Your task to perform on an android device: turn on wifi Image 0: 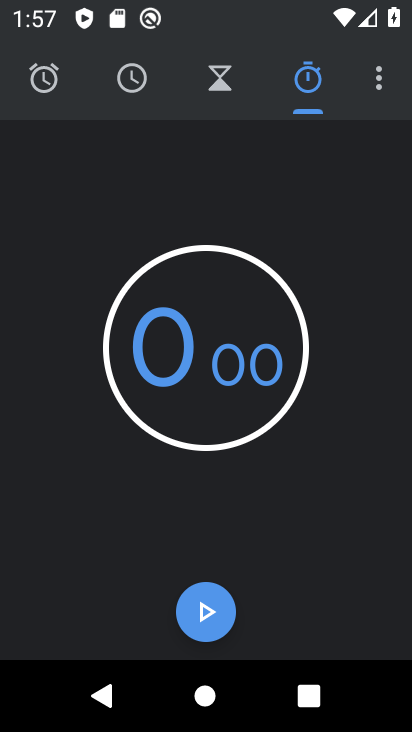
Step 0: press home button
Your task to perform on an android device: turn on wifi Image 1: 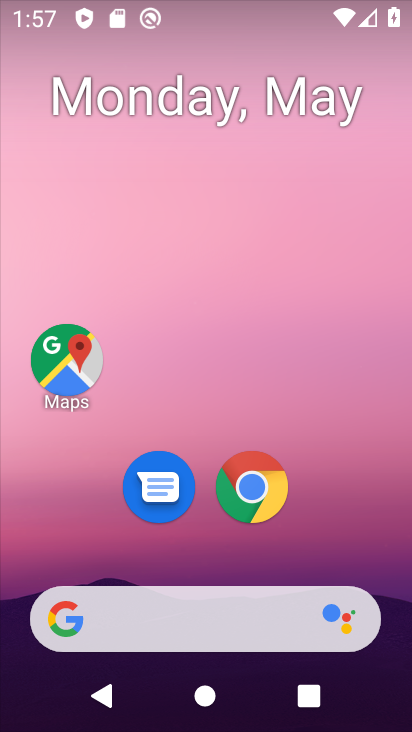
Step 1: drag from (349, 569) to (315, 183)
Your task to perform on an android device: turn on wifi Image 2: 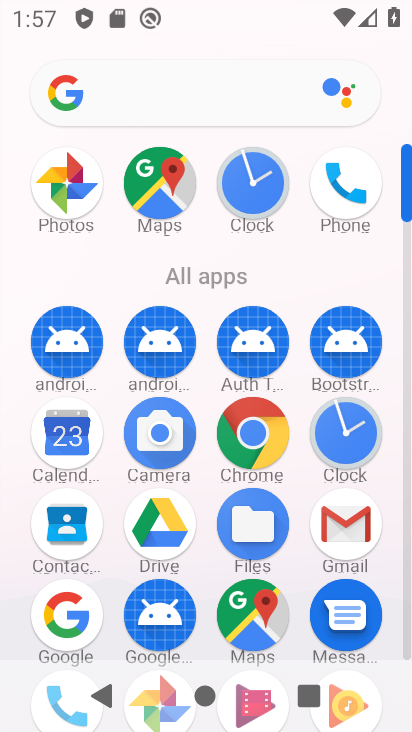
Step 2: click (407, 648)
Your task to perform on an android device: turn on wifi Image 3: 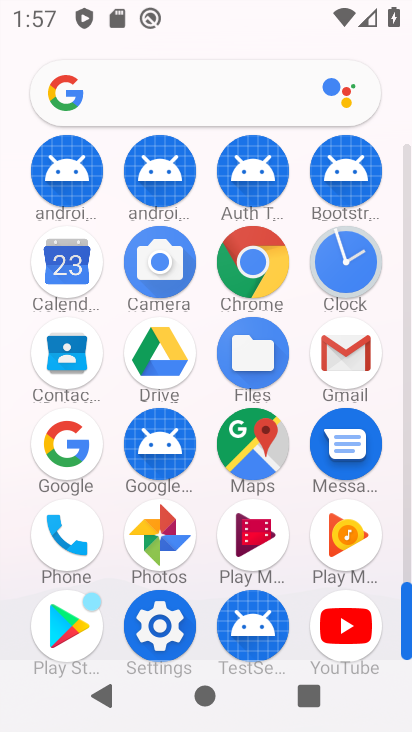
Step 3: click (150, 638)
Your task to perform on an android device: turn on wifi Image 4: 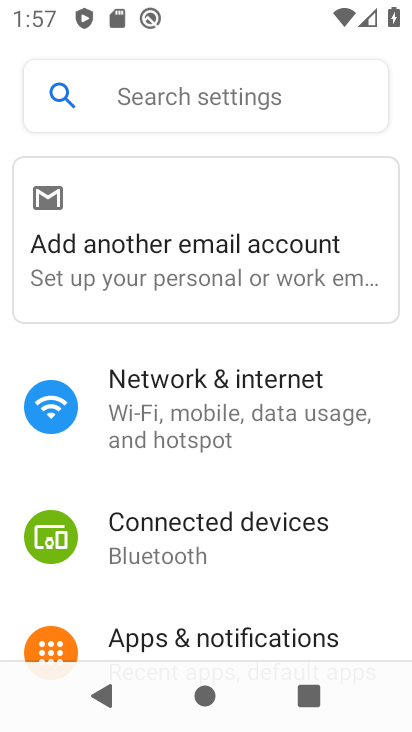
Step 4: click (283, 422)
Your task to perform on an android device: turn on wifi Image 5: 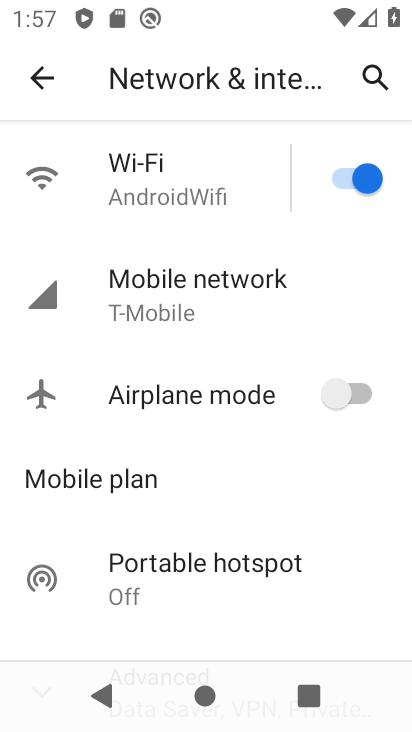
Step 5: task complete